Your task to perform on an android device: Do I have any events today? Image 0: 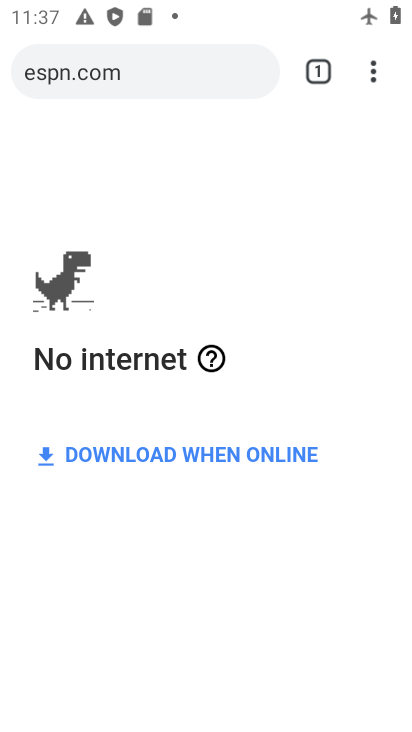
Step 0: press home button
Your task to perform on an android device: Do I have any events today? Image 1: 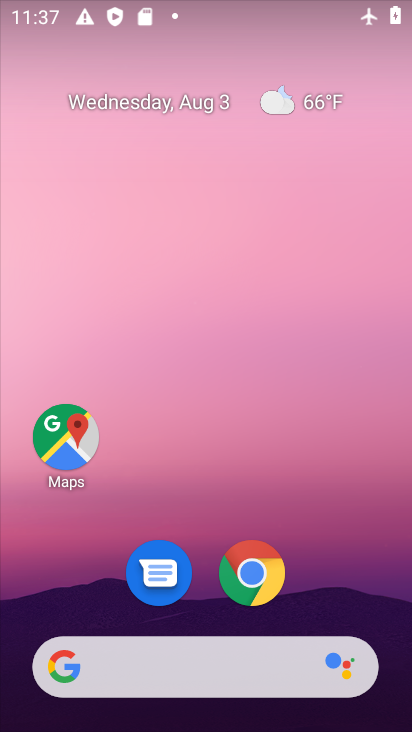
Step 1: drag from (349, 604) to (236, 91)
Your task to perform on an android device: Do I have any events today? Image 2: 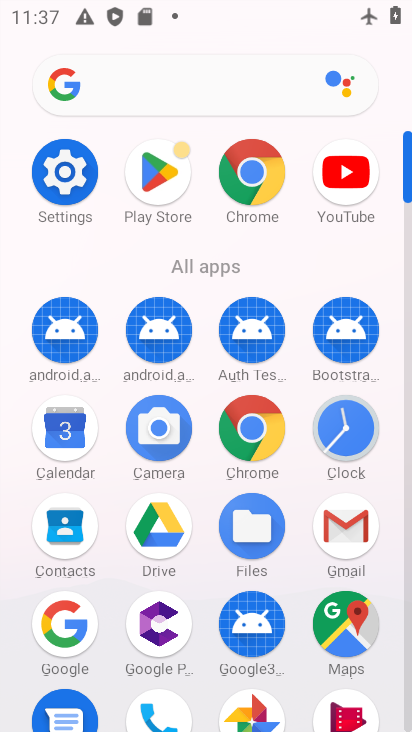
Step 2: click (61, 426)
Your task to perform on an android device: Do I have any events today? Image 3: 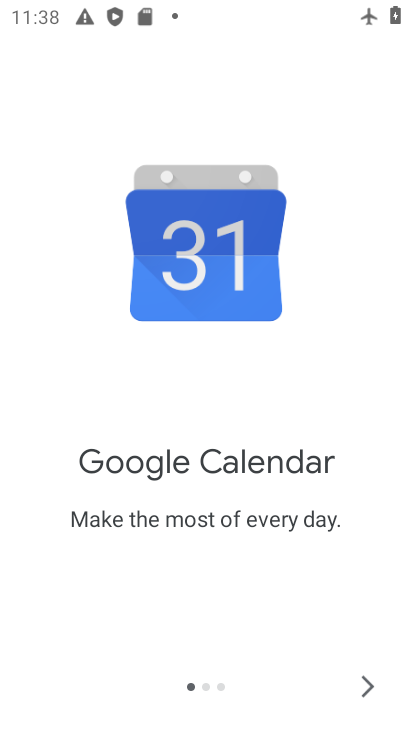
Step 3: click (365, 690)
Your task to perform on an android device: Do I have any events today? Image 4: 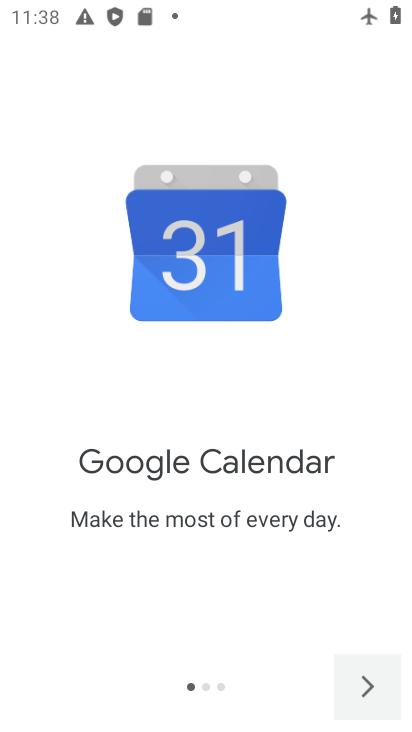
Step 4: click (365, 689)
Your task to perform on an android device: Do I have any events today? Image 5: 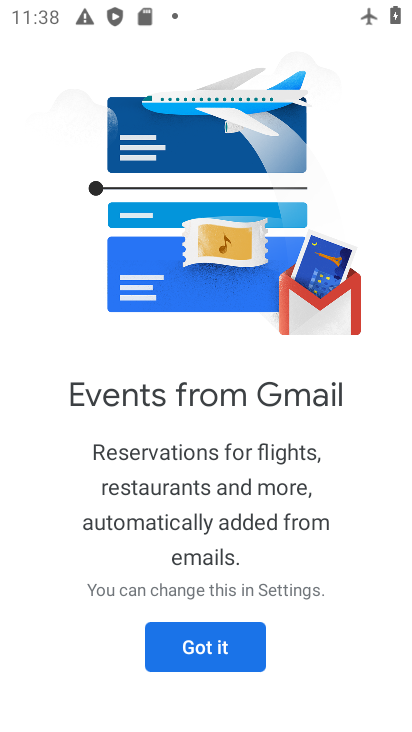
Step 5: click (365, 689)
Your task to perform on an android device: Do I have any events today? Image 6: 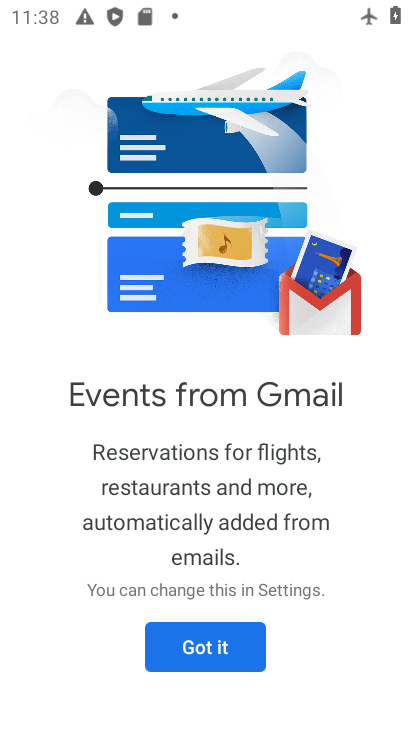
Step 6: click (198, 647)
Your task to perform on an android device: Do I have any events today? Image 7: 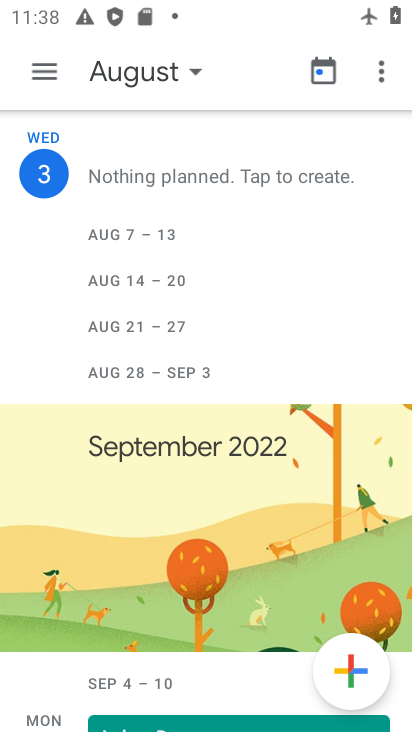
Step 7: task complete